Your task to perform on an android device: Is it going to rain today? Image 0: 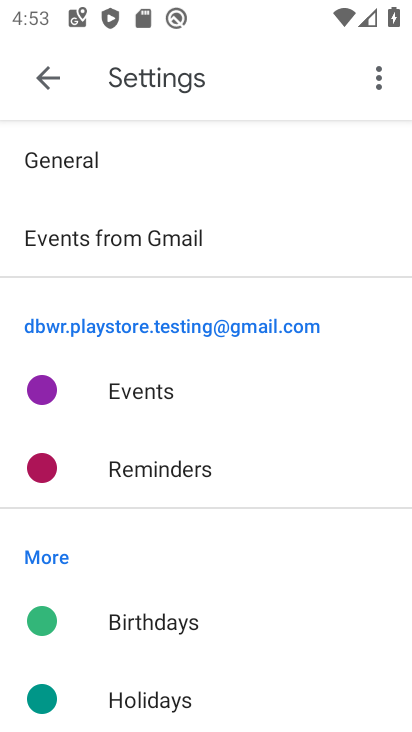
Step 0: press home button
Your task to perform on an android device: Is it going to rain today? Image 1: 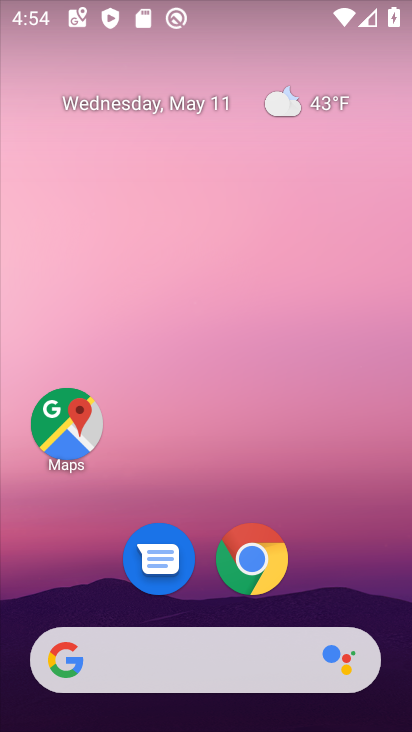
Step 1: drag from (314, 379) to (267, 71)
Your task to perform on an android device: Is it going to rain today? Image 2: 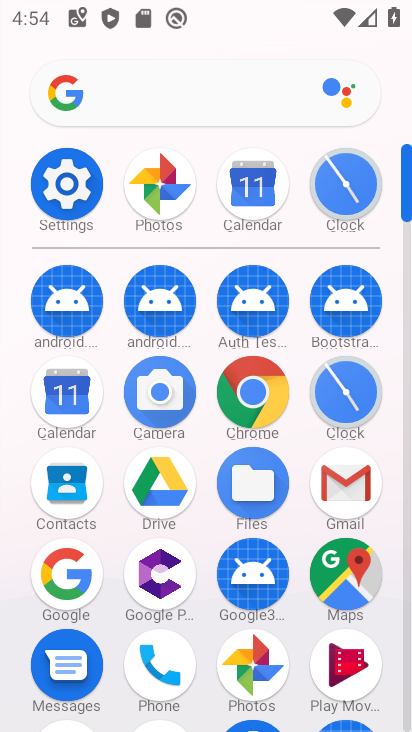
Step 2: click (82, 601)
Your task to perform on an android device: Is it going to rain today? Image 3: 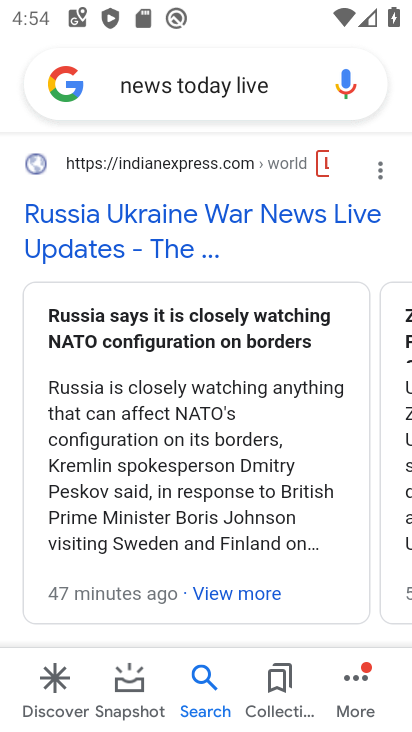
Step 3: click (281, 83)
Your task to perform on an android device: Is it going to rain today? Image 4: 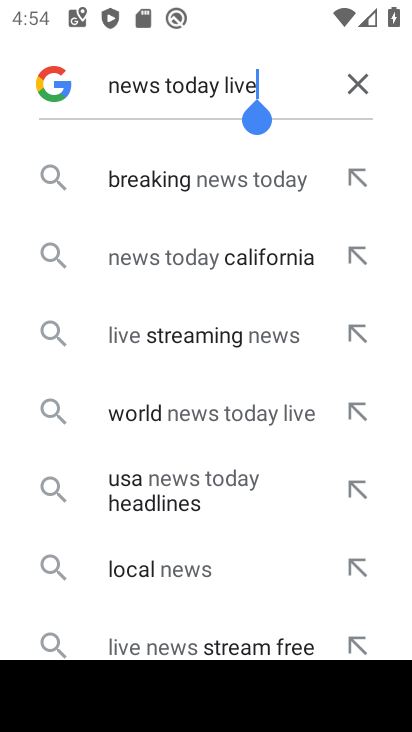
Step 4: click (342, 82)
Your task to perform on an android device: Is it going to rain today? Image 5: 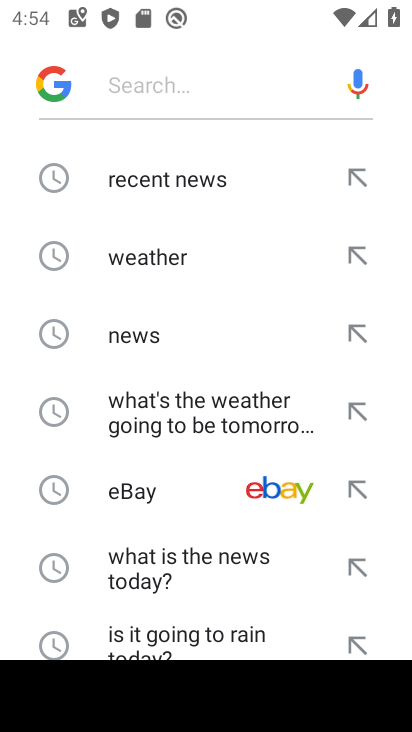
Step 5: click (132, 259)
Your task to perform on an android device: Is it going to rain today? Image 6: 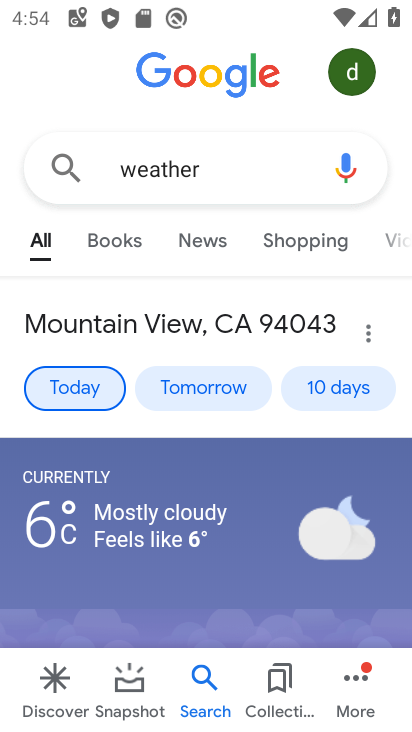
Step 6: drag from (180, 516) to (227, 244)
Your task to perform on an android device: Is it going to rain today? Image 7: 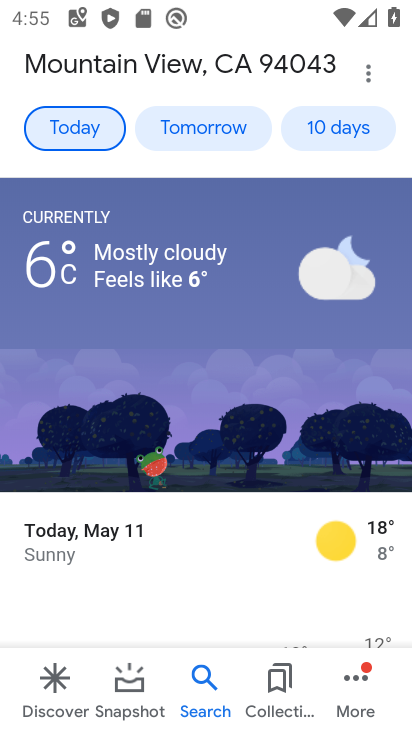
Step 7: click (309, 371)
Your task to perform on an android device: Is it going to rain today? Image 8: 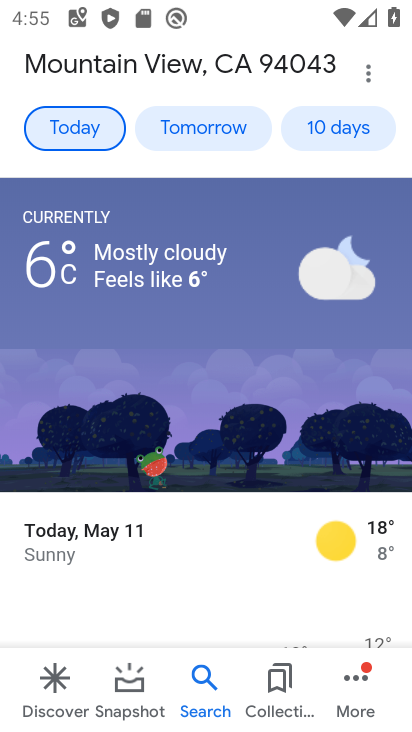
Step 8: task complete